Your task to perform on an android device: turn off location Image 0: 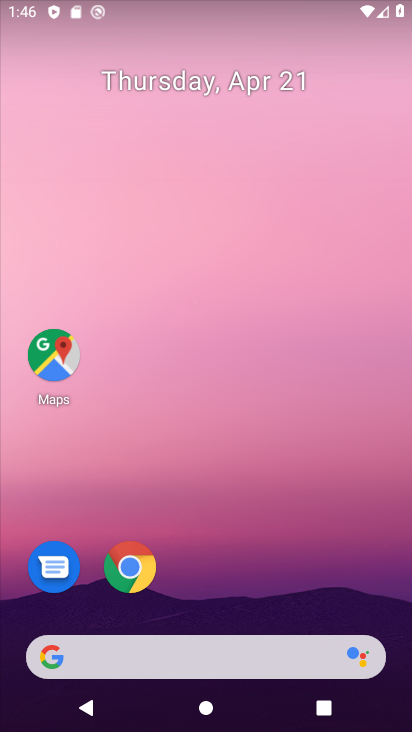
Step 0: drag from (196, 644) to (340, 96)
Your task to perform on an android device: turn off location Image 1: 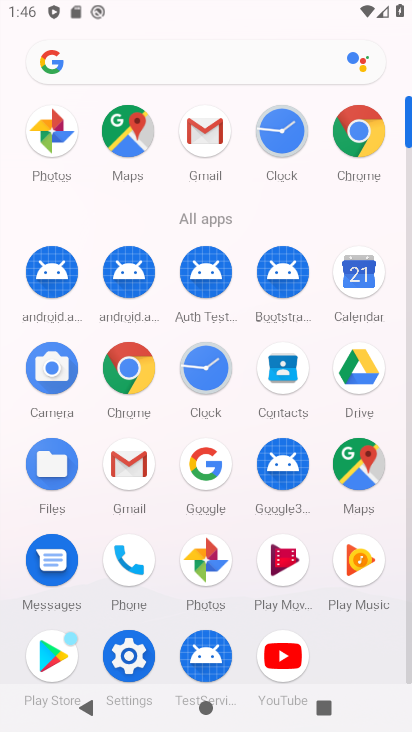
Step 1: click (128, 658)
Your task to perform on an android device: turn off location Image 2: 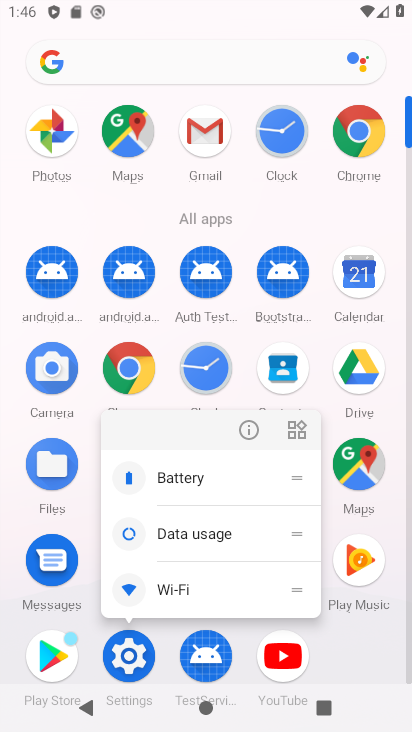
Step 2: click (126, 666)
Your task to perform on an android device: turn off location Image 3: 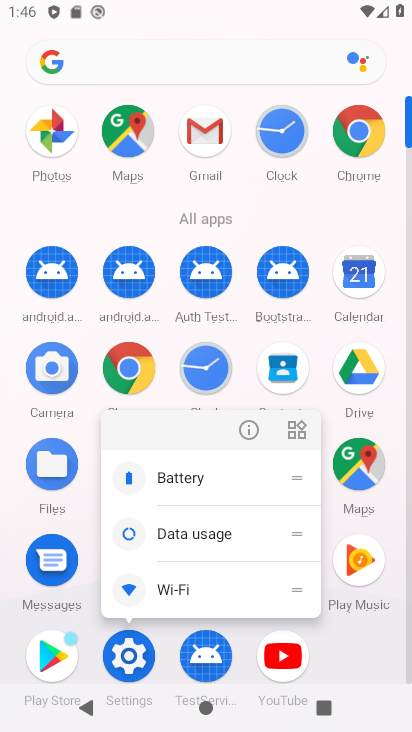
Step 3: click (126, 667)
Your task to perform on an android device: turn off location Image 4: 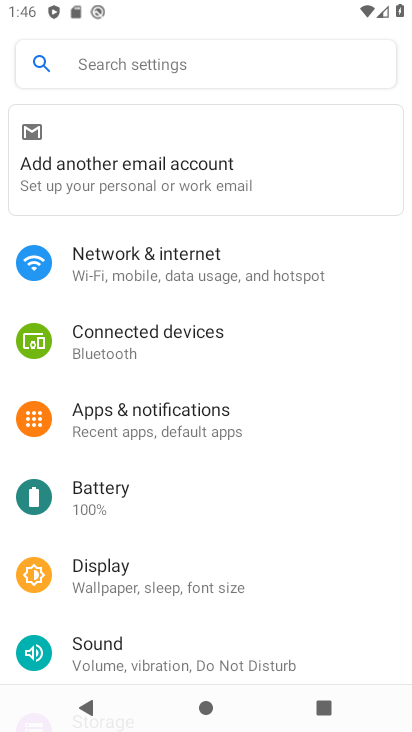
Step 4: drag from (145, 607) to (294, 213)
Your task to perform on an android device: turn off location Image 5: 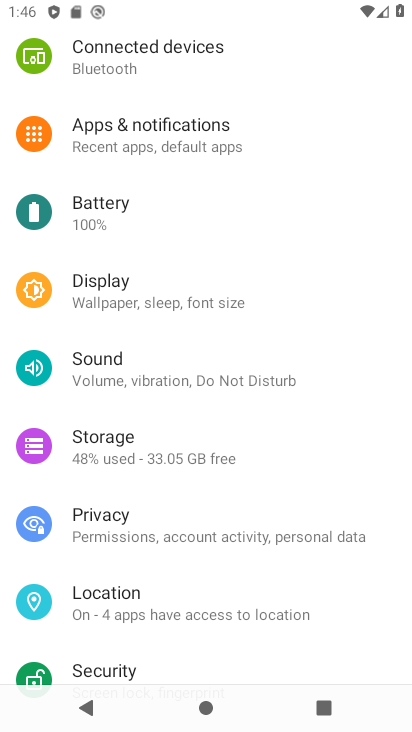
Step 5: click (109, 593)
Your task to perform on an android device: turn off location Image 6: 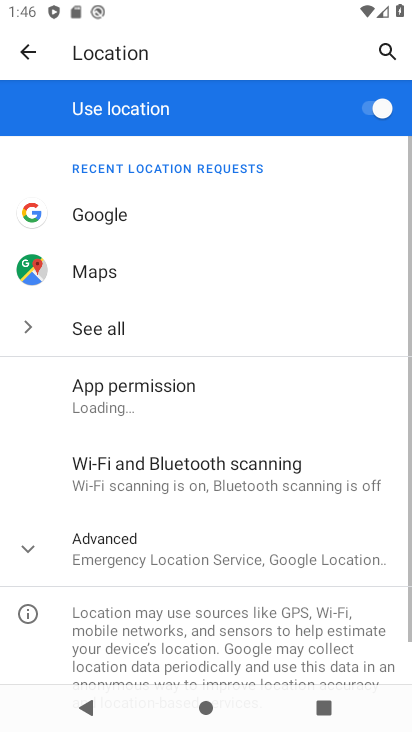
Step 6: click (373, 110)
Your task to perform on an android device: turn off location Image 7: 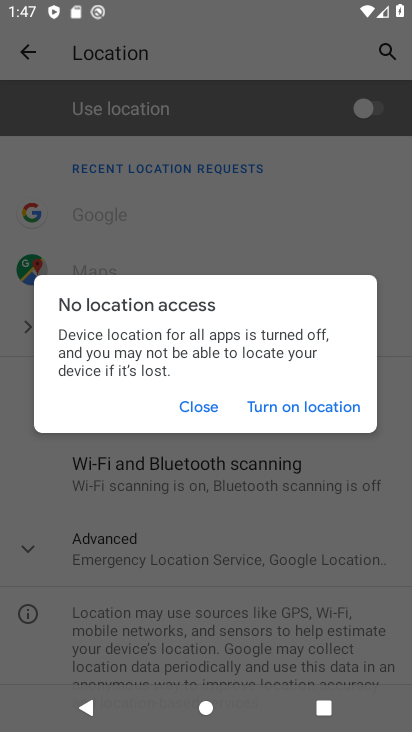
Step 7: task complete